Your task to perform on an android device: Open ESPN.com Image 0: 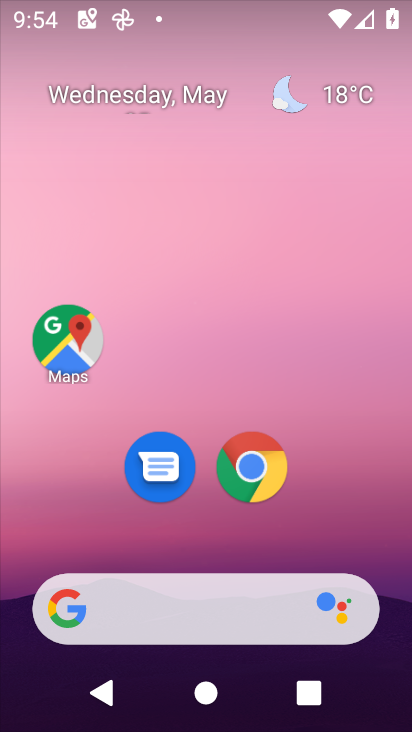
Step 0: click (242, 463)
Your task to perform on an android device: Open ESPN.com Image 1: 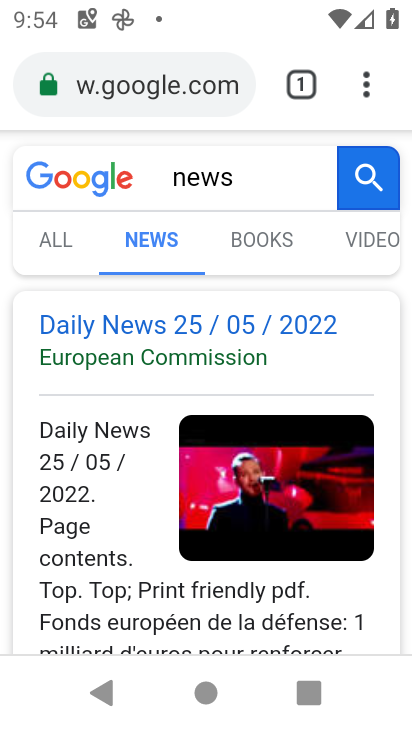
Step 1: click (164, 79)
Your task to perform on an android device: Open ESPN.com Image 2: 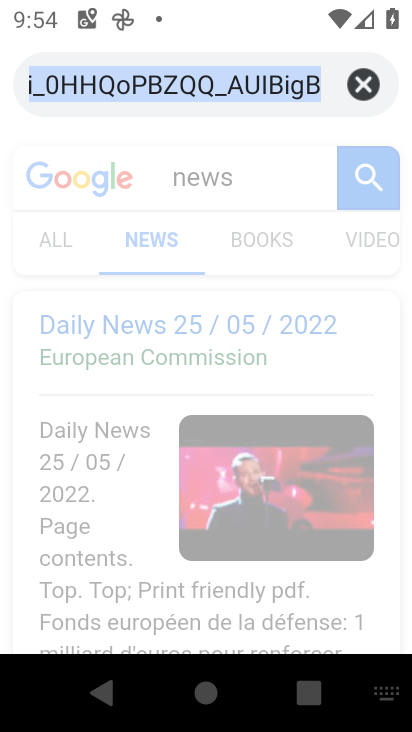
Step 2: type "espn.com"
Your task to perform on an android device: Open ESPN.com Image 3: 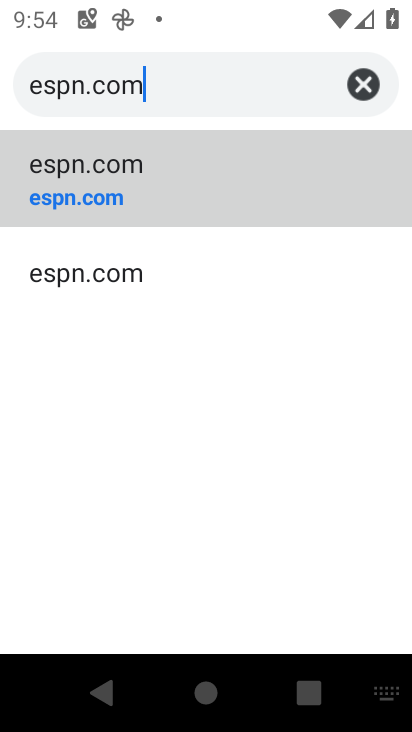
Step 3: click (120, 194)
Your task to perform on an android device: Open ESPN.com Image 4: 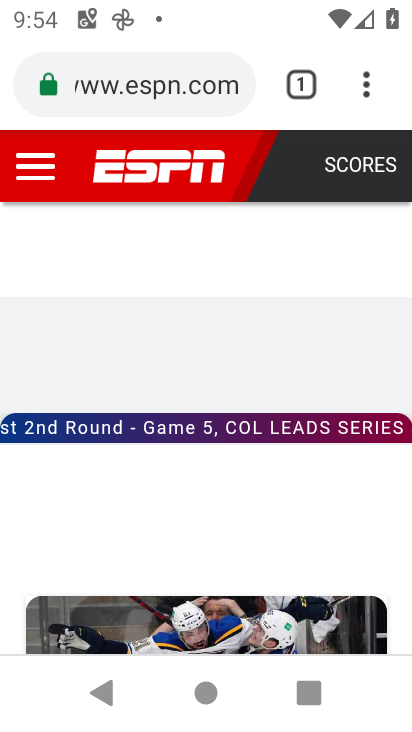
Step 4: task complete